Your task to perform on an android device: Open Android settings Image 0: 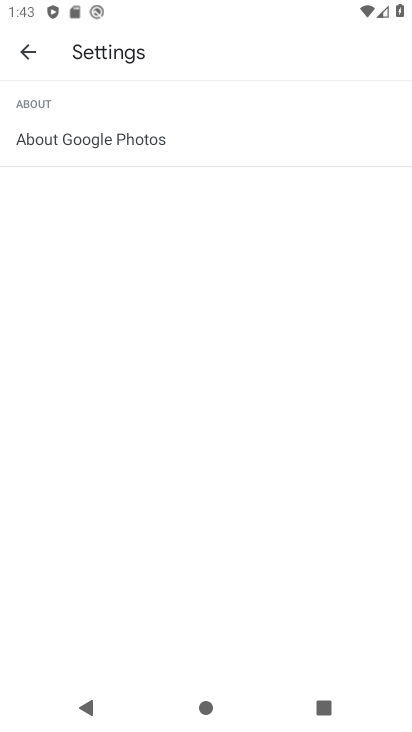
Step 0: press home button
Your task to perform on an android device: Open Android settings Image 1: 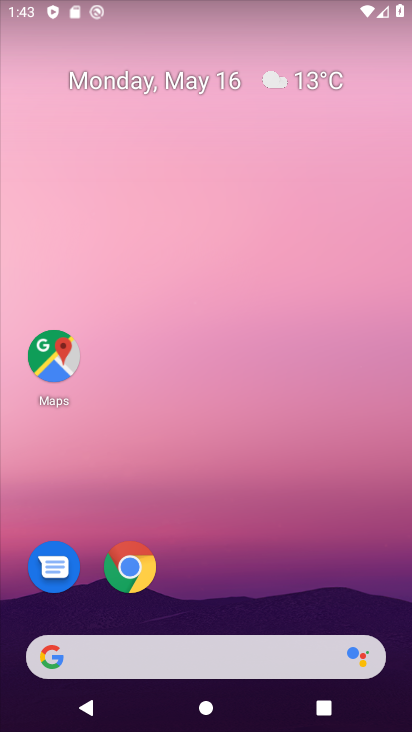
Step 1: drag from (221, 522) to (163, 48)
Your task to perform on an android device: Open Android settings Image 2: 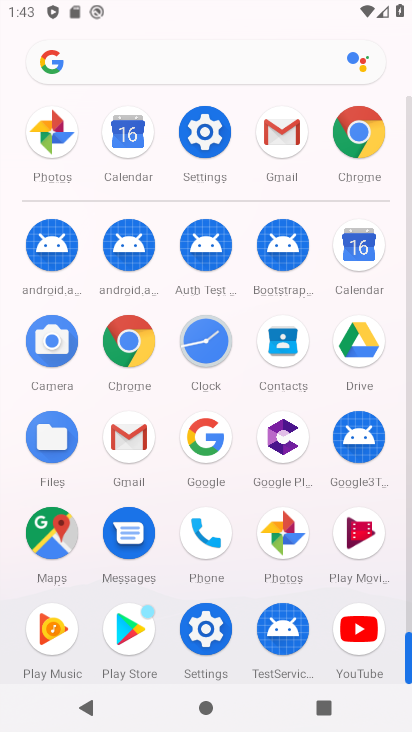
Step 2: click (215, 129)
Your task to perform on an android device: Open Android settings Image 3: 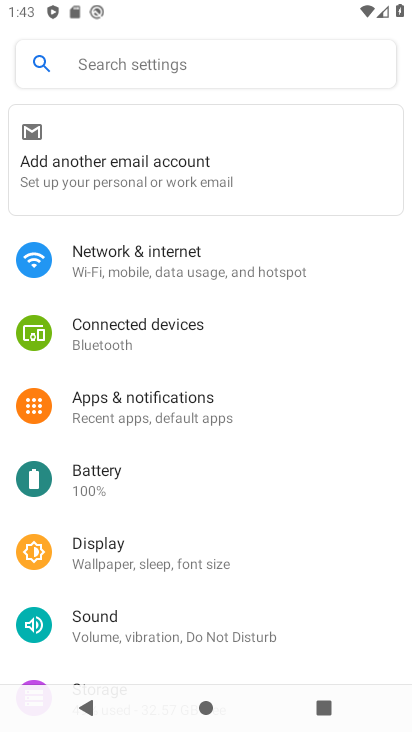
Step 3: task complete